Your task to perform on an android device: open app "Venmo" Image 0: 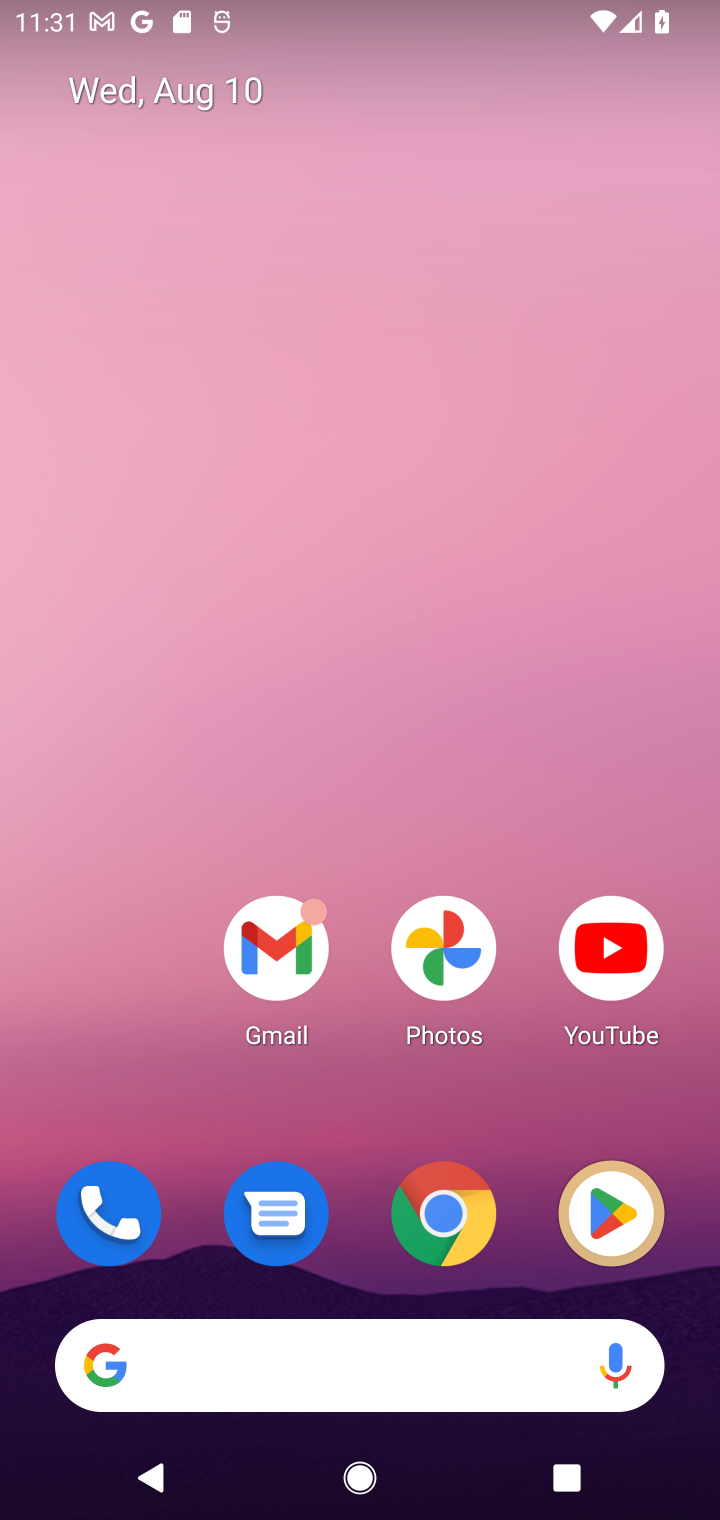
Step 0: drag from (430, 1232) to (360, 357)
Your task to perform on an android device: open app "Venmo" Image 1: 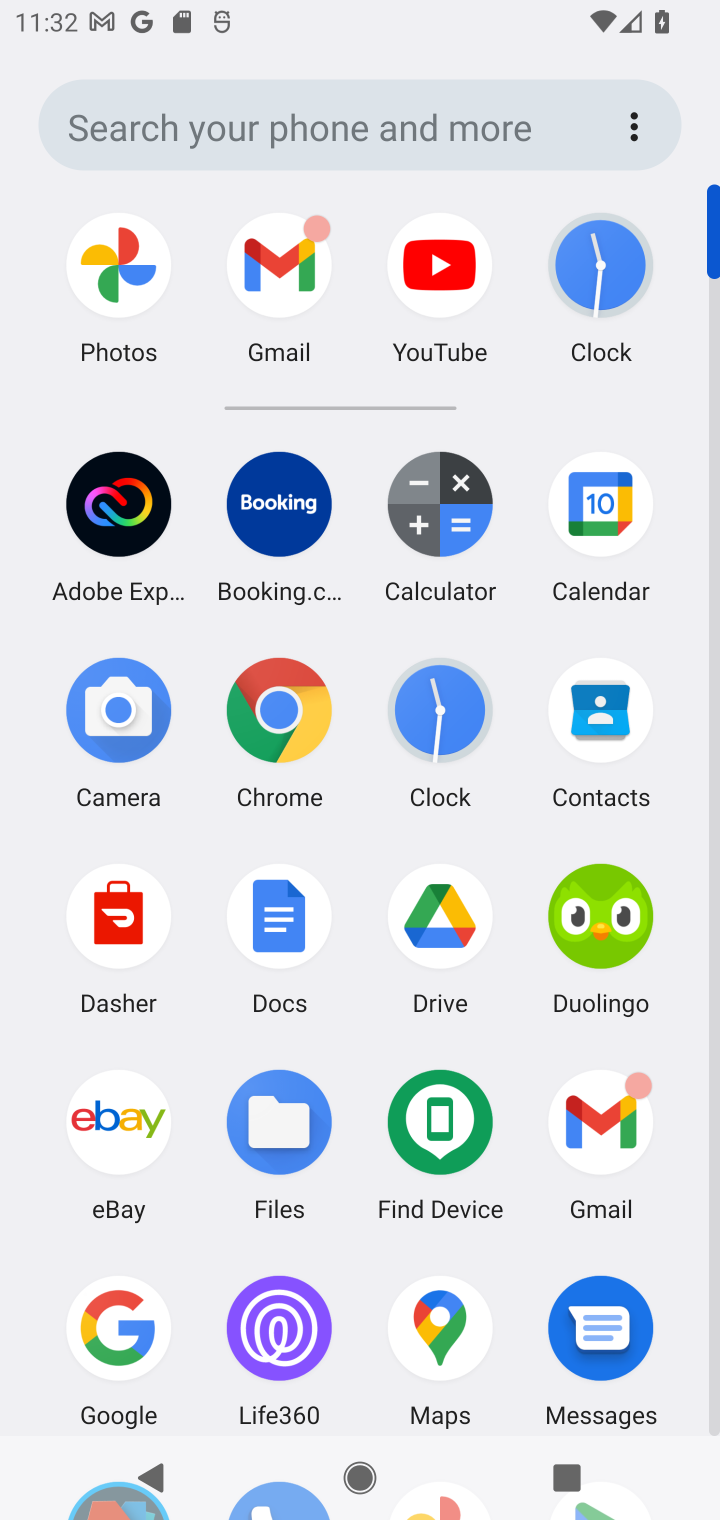
Step 1: drag from (187, 1372) to (156, 746)
Your task to perform on an android device: open app "Venmo" Image 2: 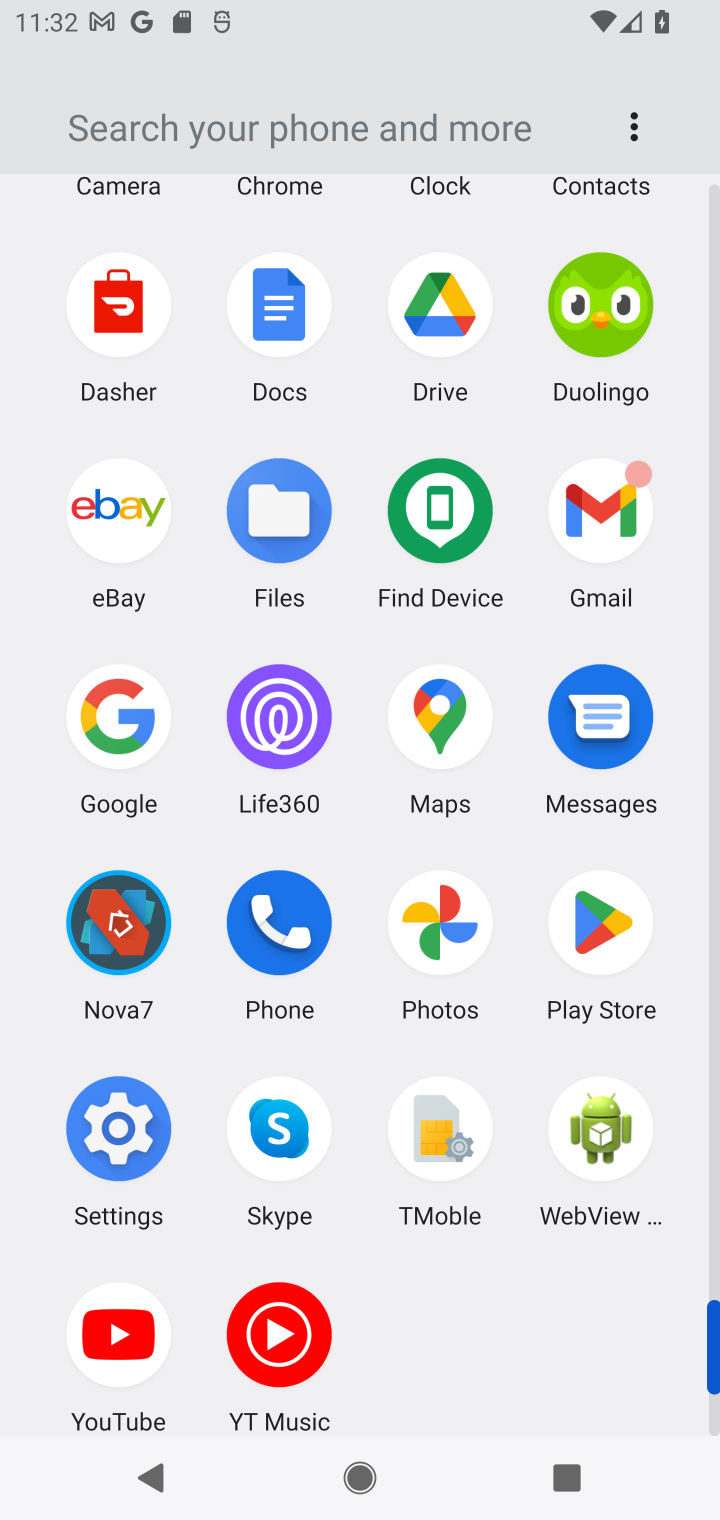
Step 2: click (599, 929)
Your task to perform on an android device: open app "Venmo" Image 3: 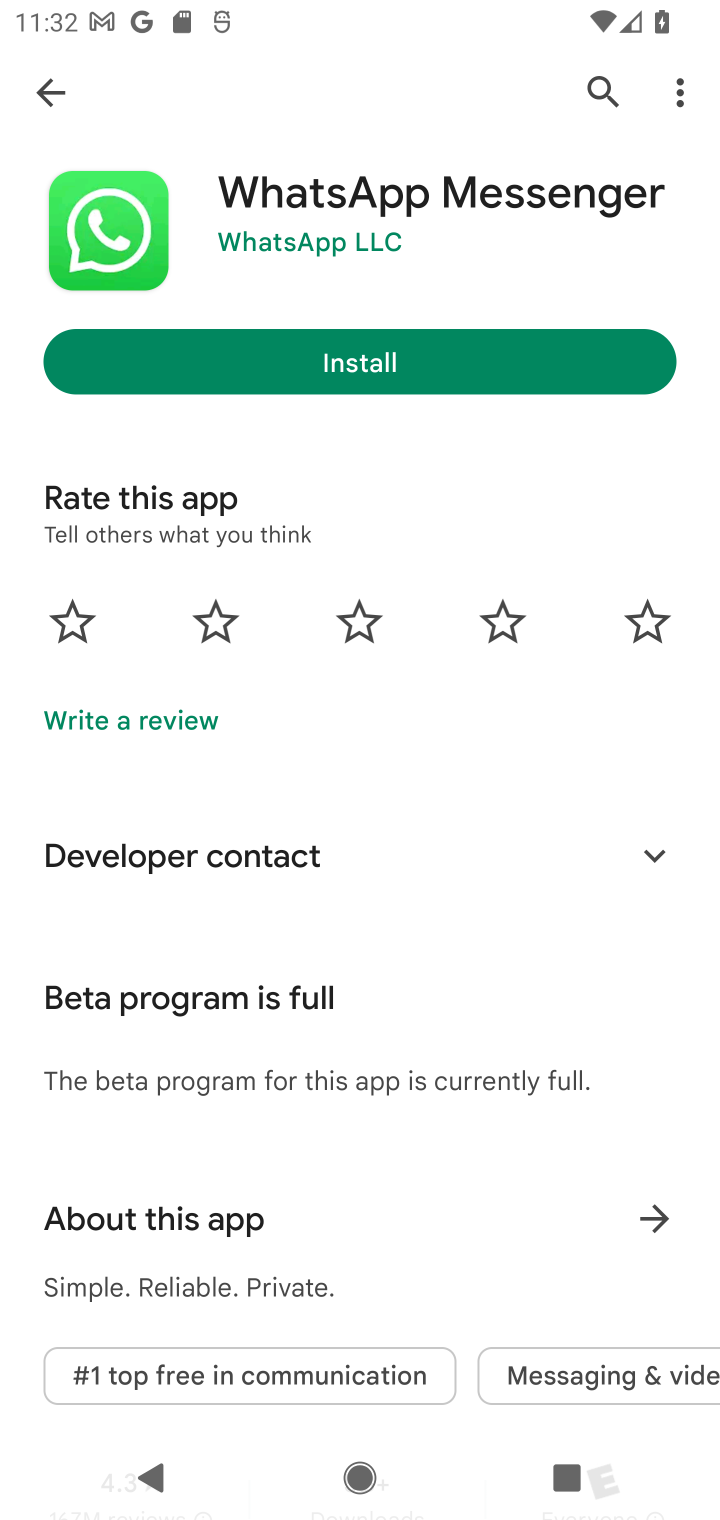
Step 3: press back button
Your task to perform on an android device: open app "Venmo" Image 4: 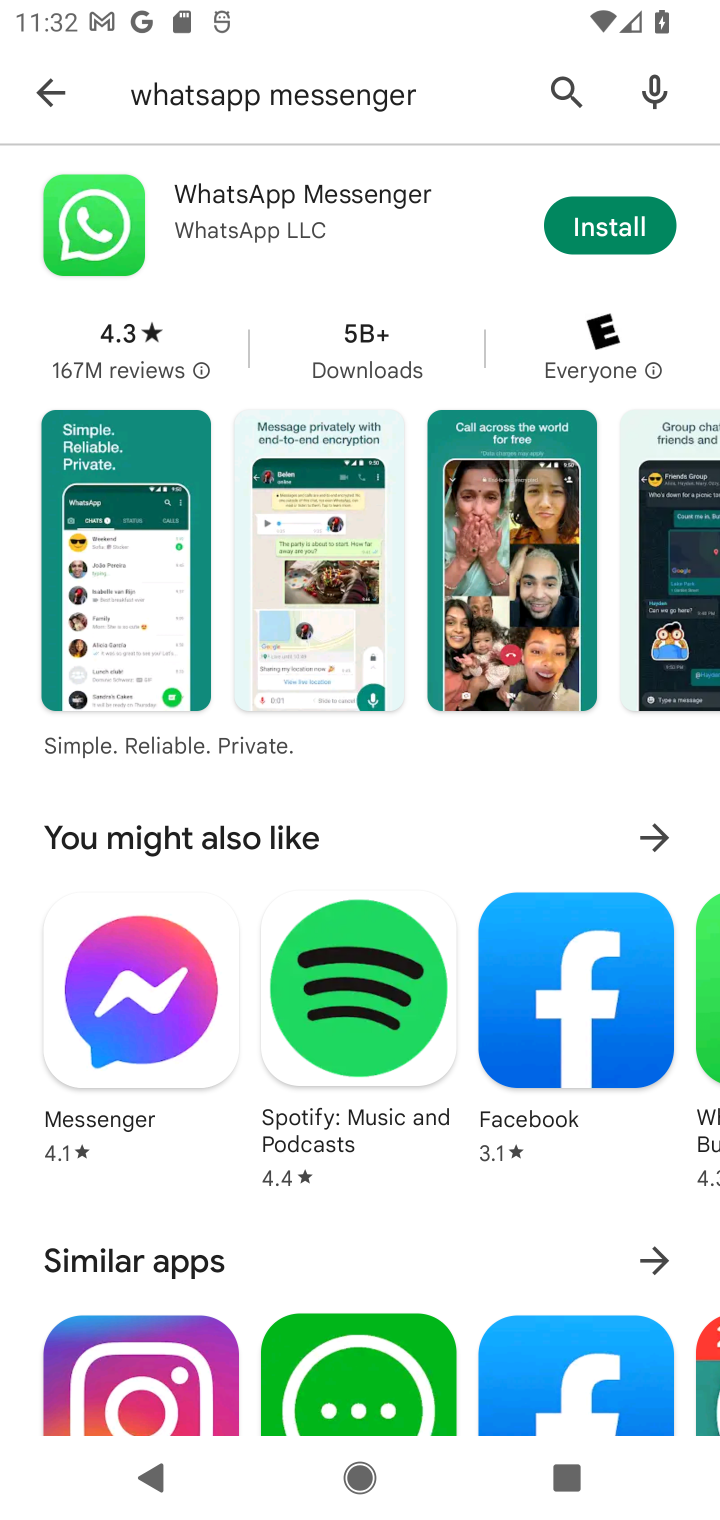
Step 4: press back button
Your task to perform on an android device: open app "Venmo" Image 5: 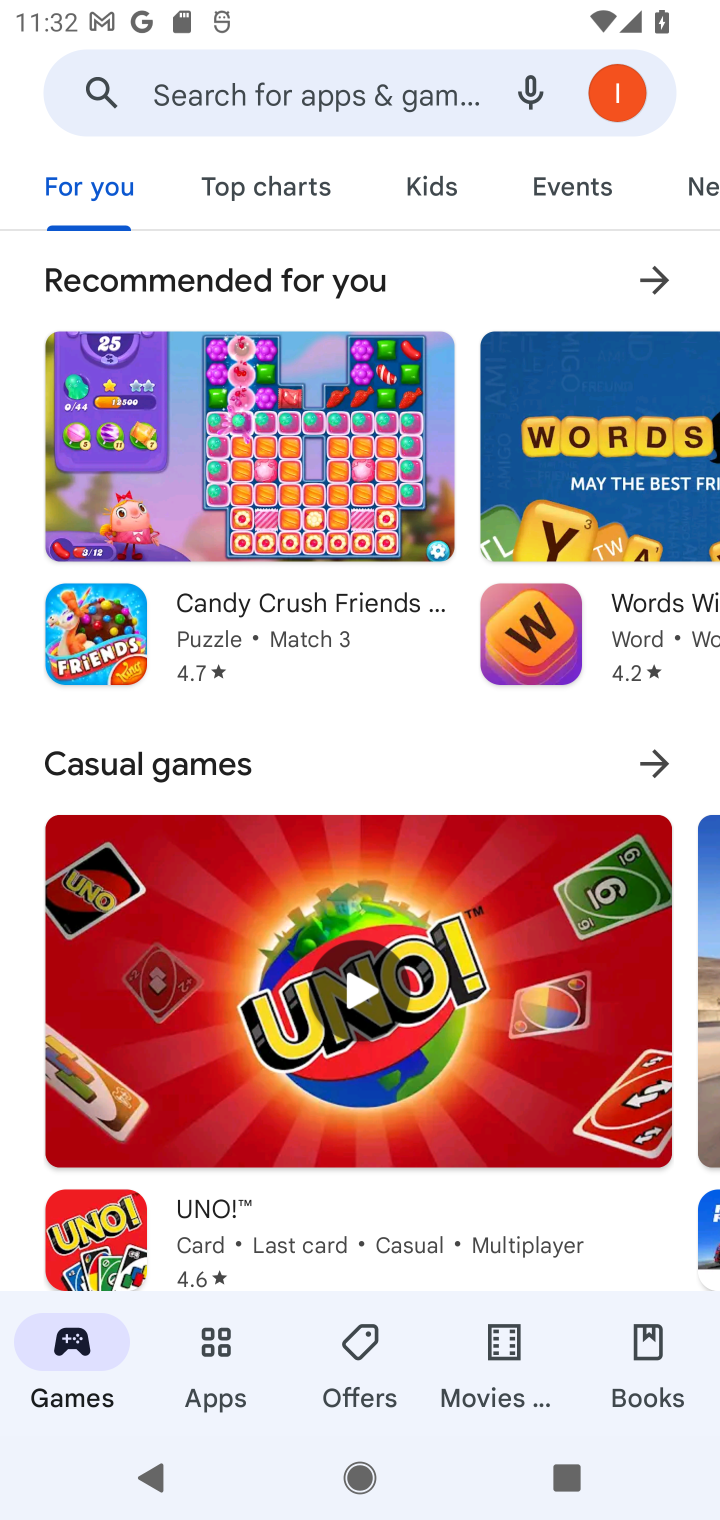
Step 5: click (363, 94)
Your task to perform on an android device: open app "Venmo" Image 6: 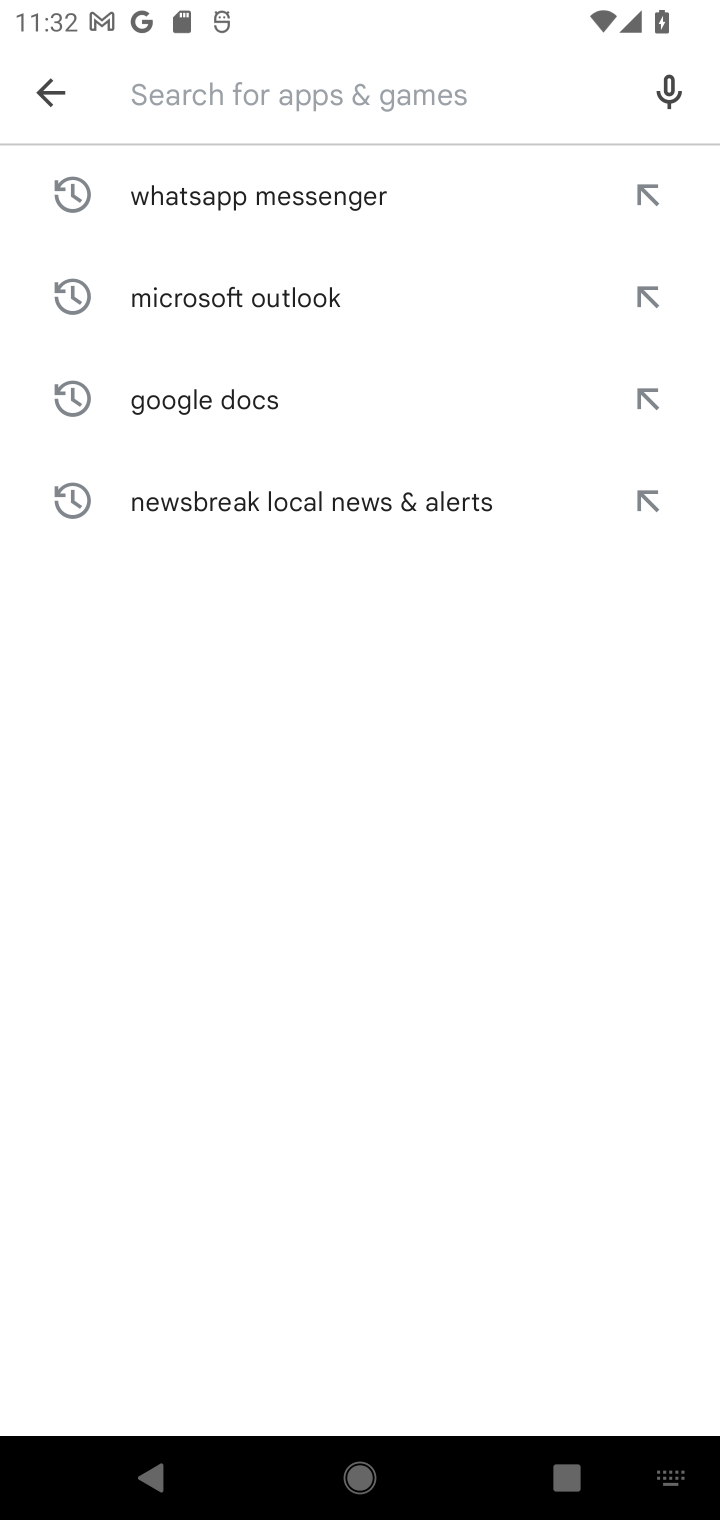
Step 6: click (266, 96)
Your task to perform on an android device: open app "Venmo" Image 7: 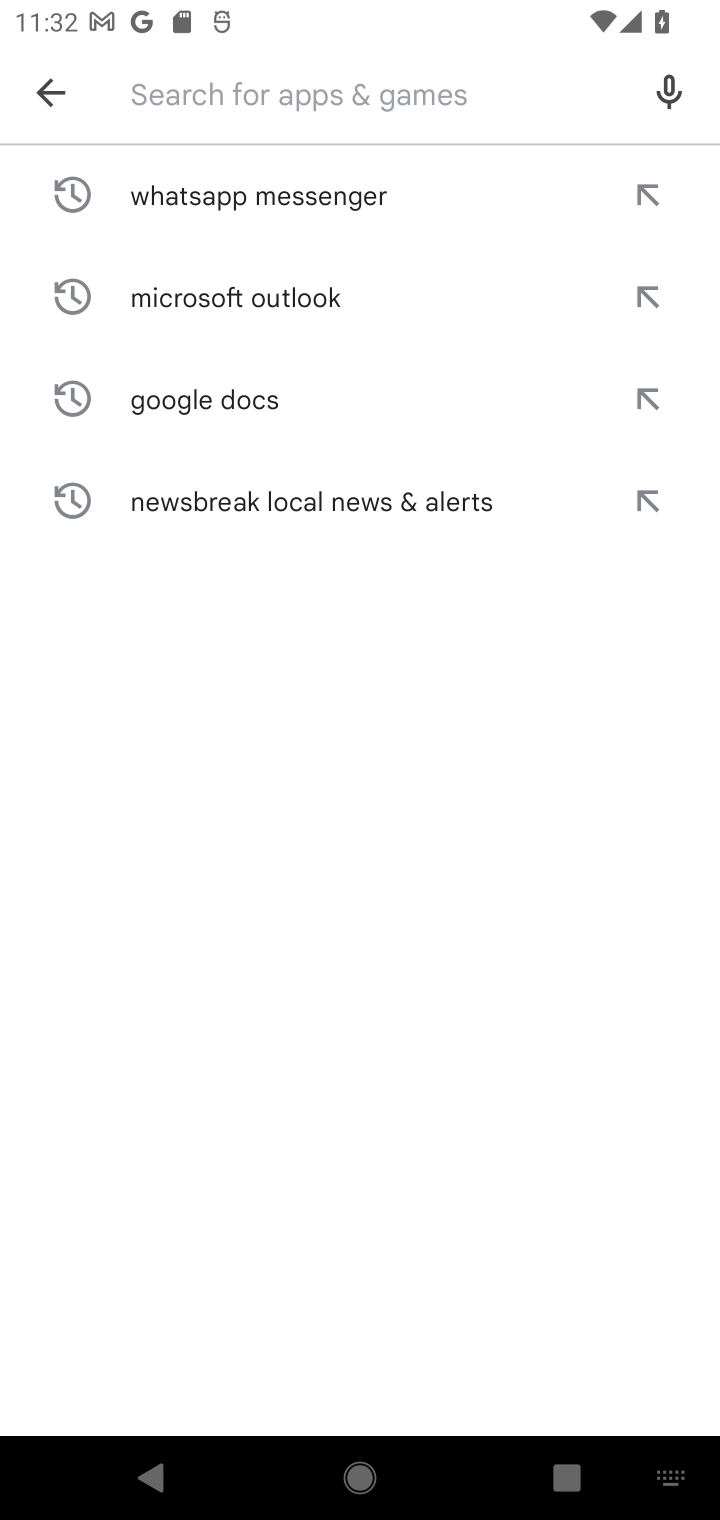
Step 7: type "Venmo"
Your task to perform on an android device: open app "Venmo" Image 8: 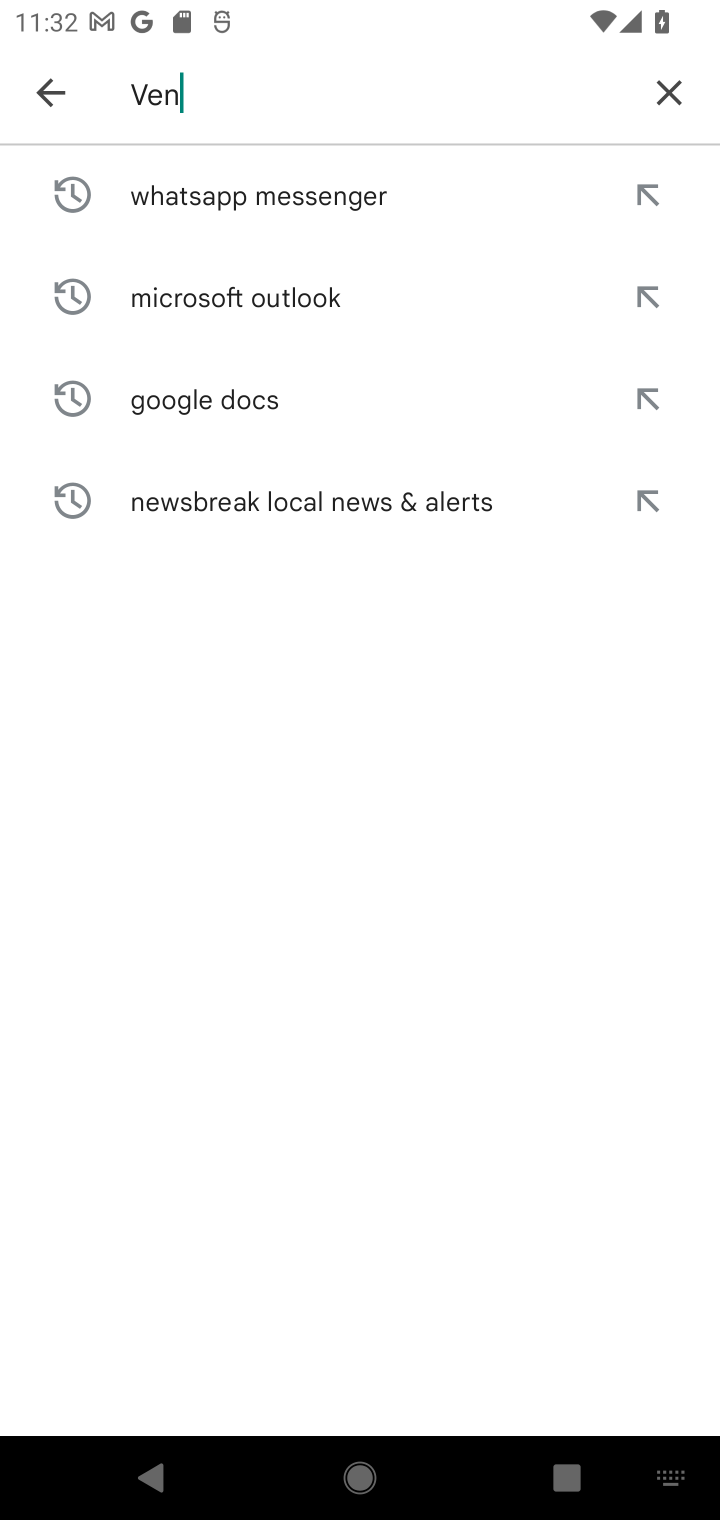
Step 8: type ""
Your task to perform on an android device: open app "Venmo" Image 9: 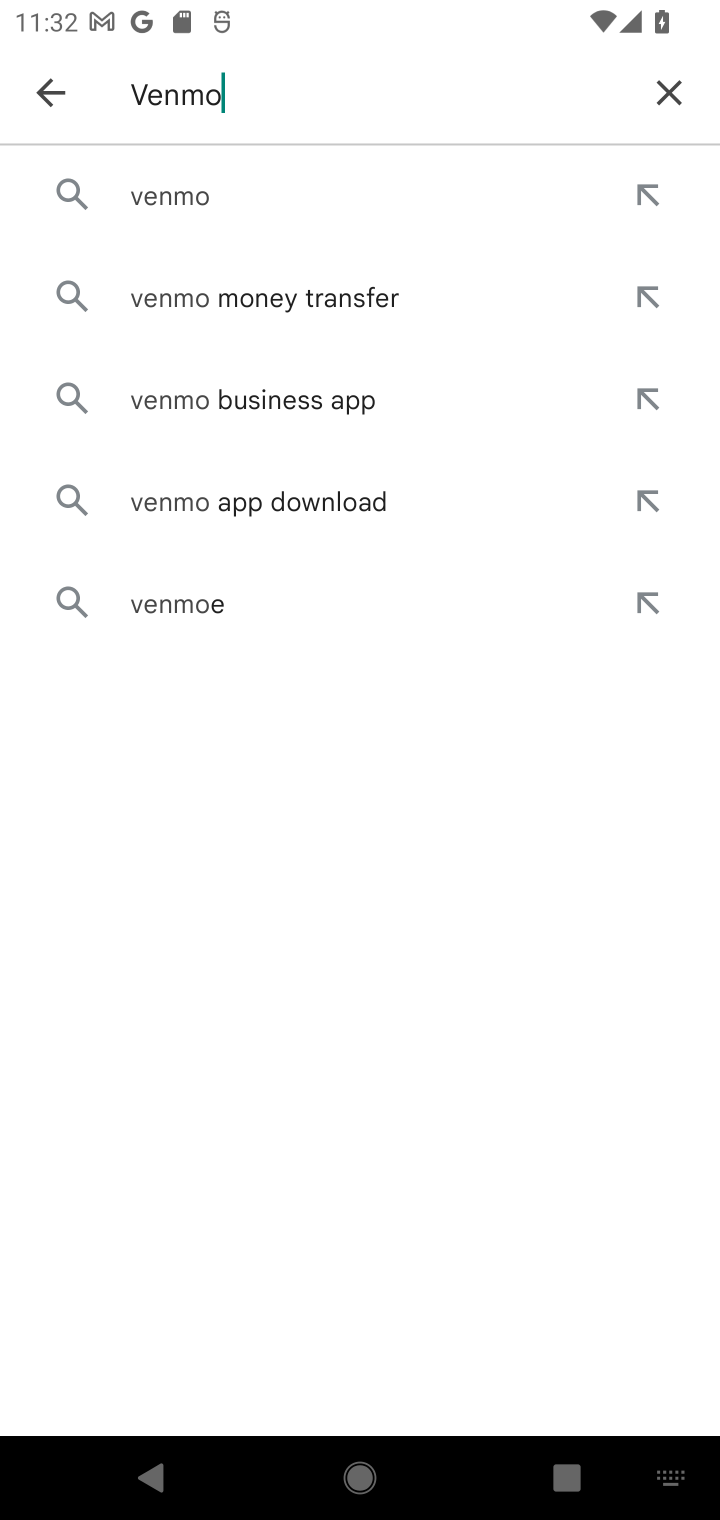
Step 9: click (199, 200)
Your task to perform on an android device: open app "Venmo" Image 10: 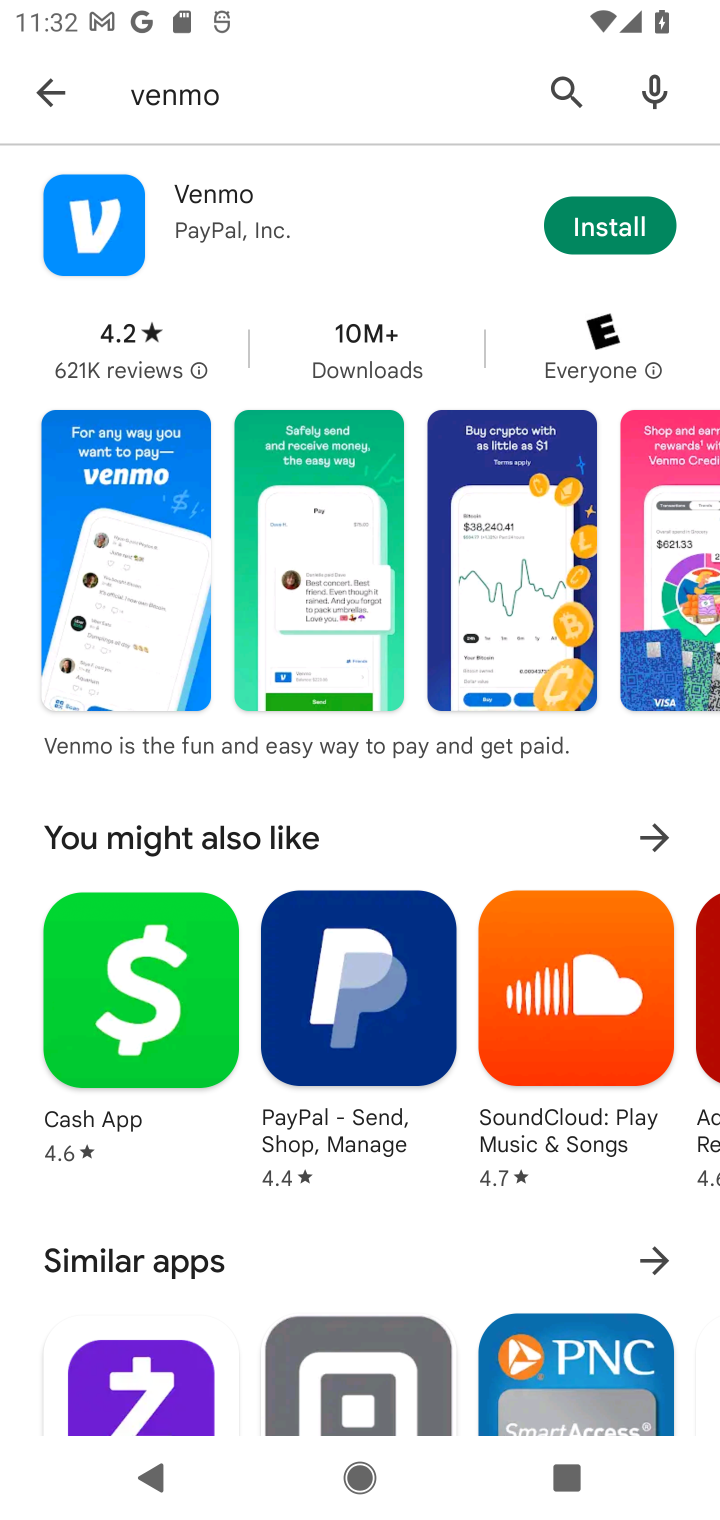
Step 10: task complete